Your task to perform on an android device: turn on notifications settings in the gmail app Image 0: 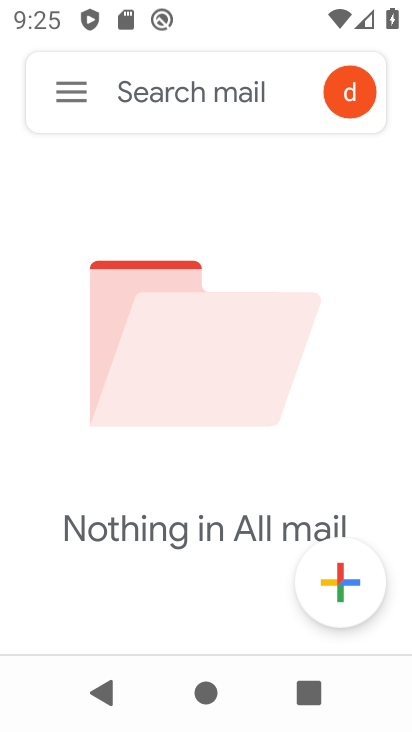
Step 0: click (61, 90)
Your task to perform on an android device: turn on notifications settings in the gmail app Image 1: 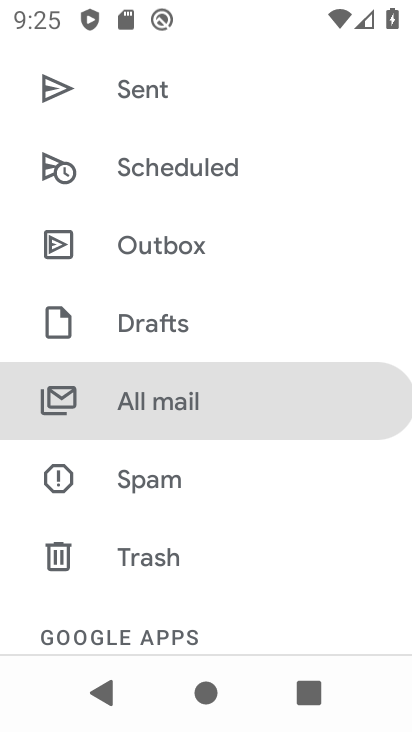
Step 1: drag from (172, 582) to (174, 175)
Your task to perform on an android device: turn on notifications settings in the gmail app Image 2: 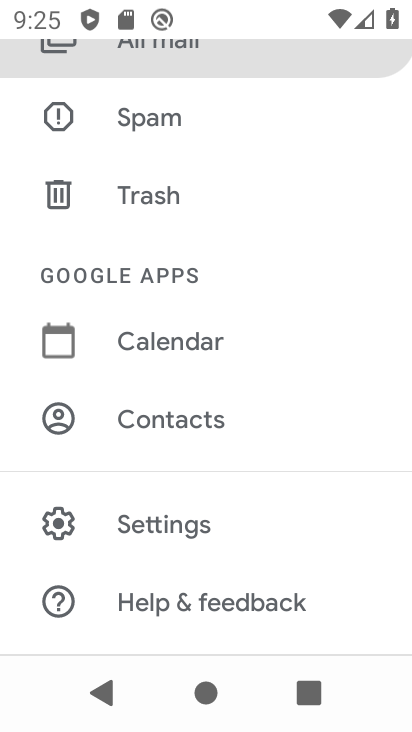
Step 2: click (177, 529)
Your task to perform on an android device: turn on notifications settings in the gmail app Image 3: 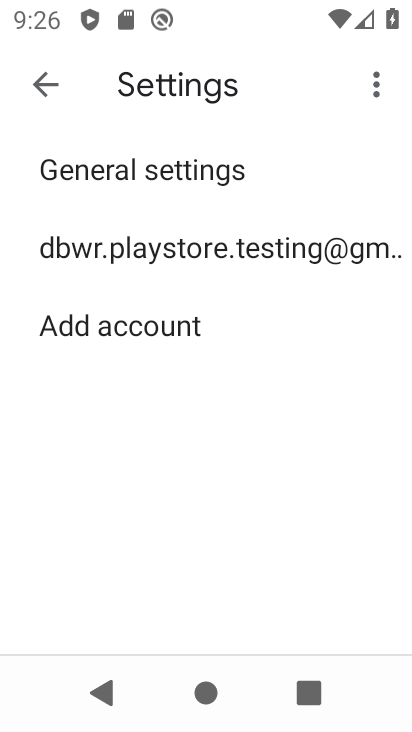
Step 3: click (187, 264)
Your task to perform on an android device: turn on notifications settings in the gmail app Image 4: 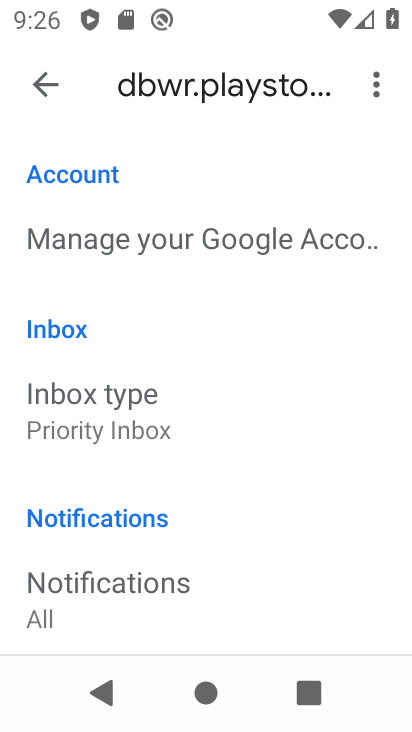
Step 4: drag from (142, 595) to (155, 336)
Your task to perform on an android device: turn on notifications settings in the gmail app Image 5: 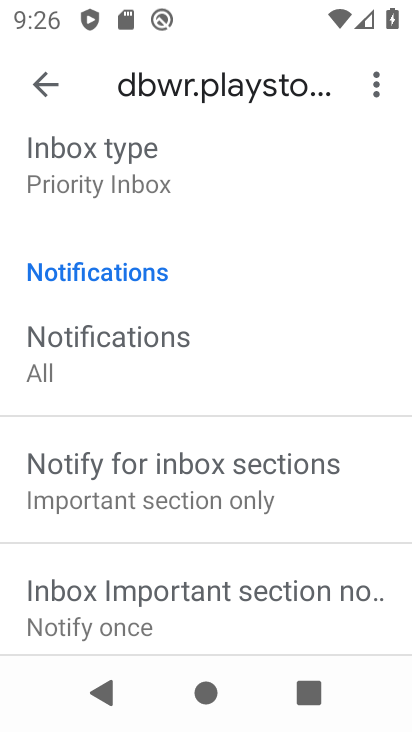
Step 5: drag from (143, 592) to (154, 396)
Your task to perform on an android device: turn on notifications settings in the gmail app Image 6: 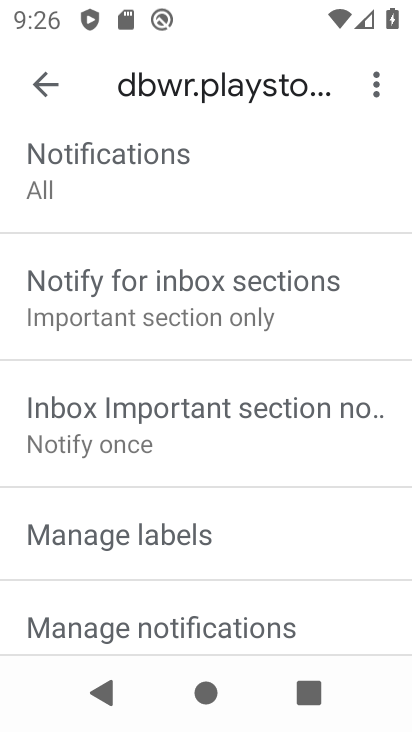
Step 6: click (107, 188)
Your task to perform on an android device: turn on notifications settings in the gmail app Image 7: 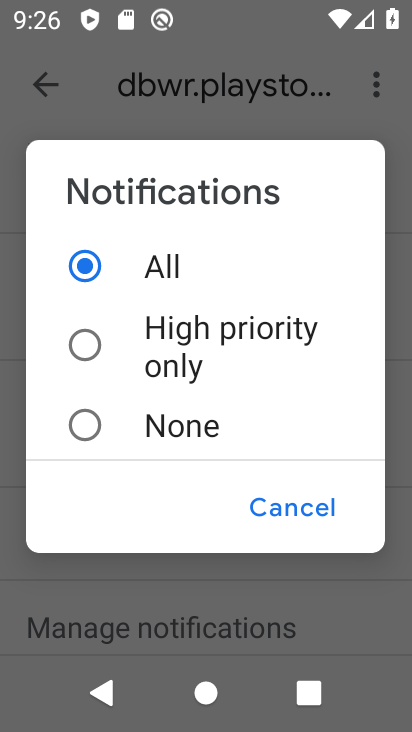
Step 7: task complete